Your task to perform on an android device: What's the weather today? Image 0: 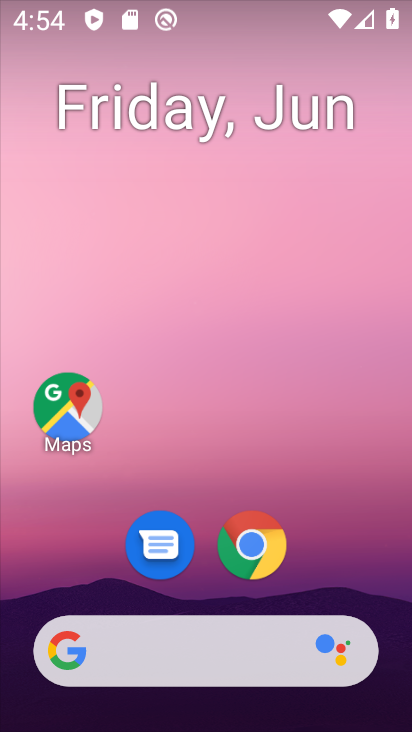
Step 0: drag from (197, 620) to (168, 252)
Your task to perform on an android device: What's the weather today? Image 1: 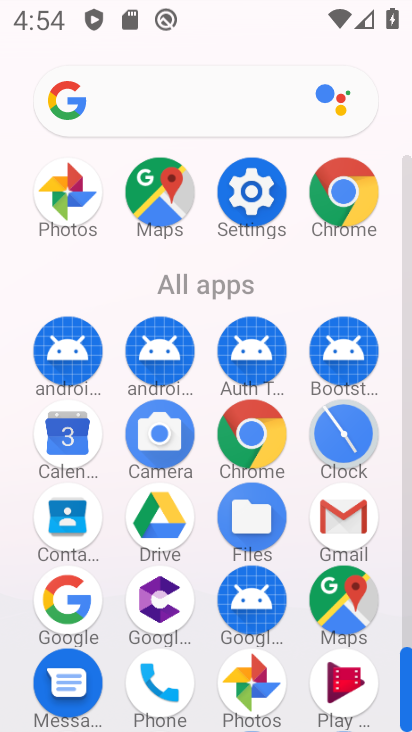
Step 1: click (75, 592)
Your task to perform on an android device: What's the weather today? Image 2: 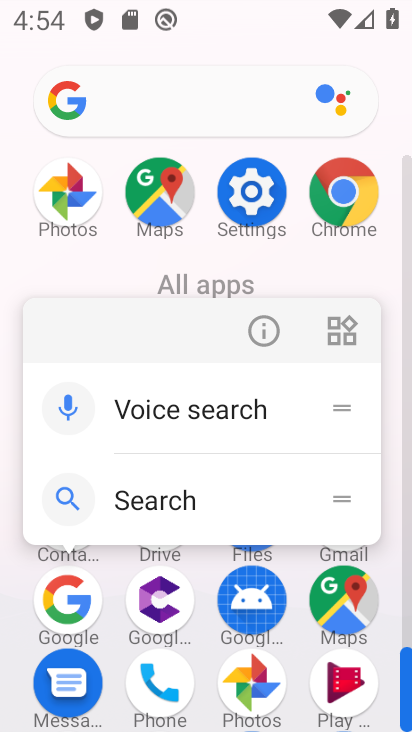
Step 2: click (64, 616)
Your task to perform on an android device: What's the weather today? Image 3: 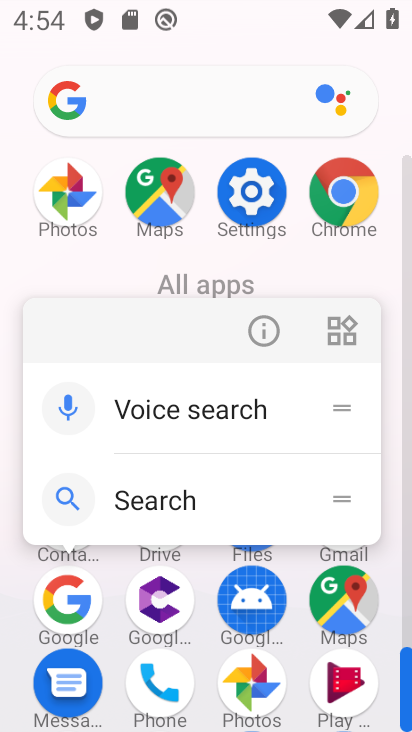
Step 3: click (58, 605)
Your task to perform on an android device: What's the weather today? Image 4: 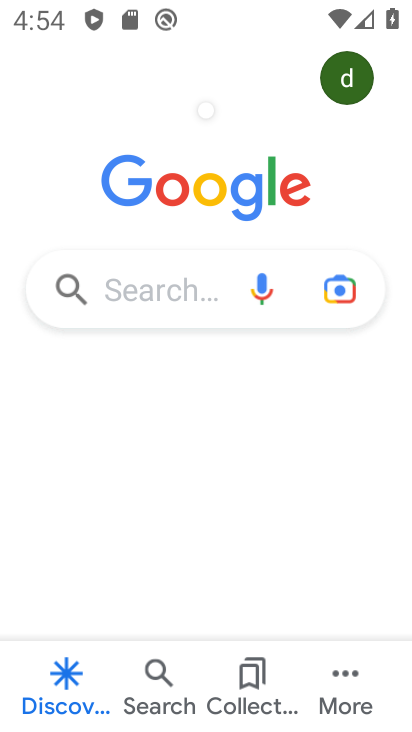
Step 4: click (140, 291)
Your task to perform on an android device: What's the weather today? Image 5: 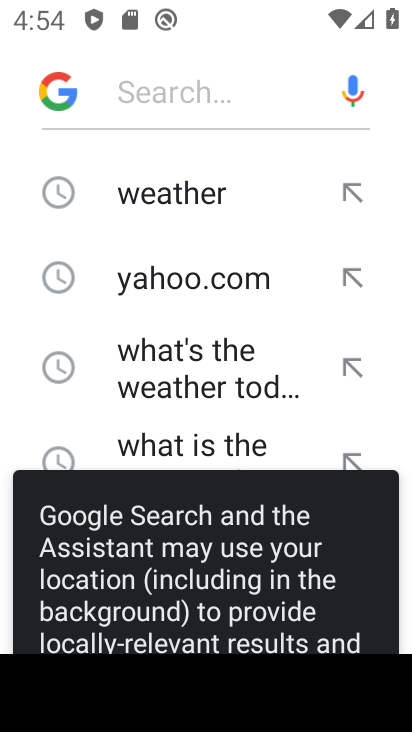
Step 5: click (178, 195)
Your task to perform on an android device: What's the weather today? Image 6: 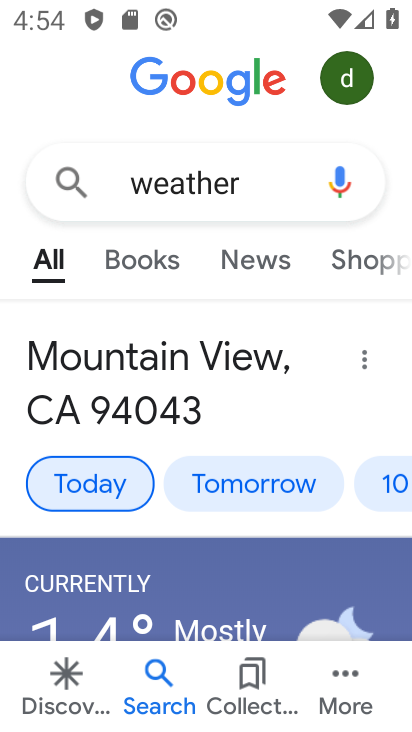
Step 6: click (188, 318)
Your task to perform on an android device: What's the weather today? Image 7: 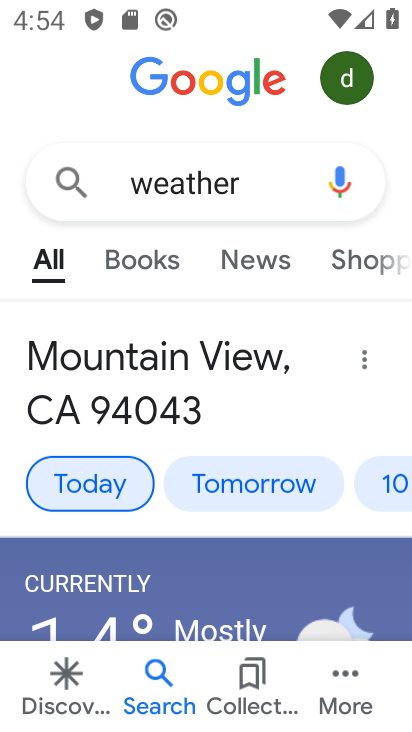
Step 7: task complete